Your task to perform on an android device: Open eBay Image 0: 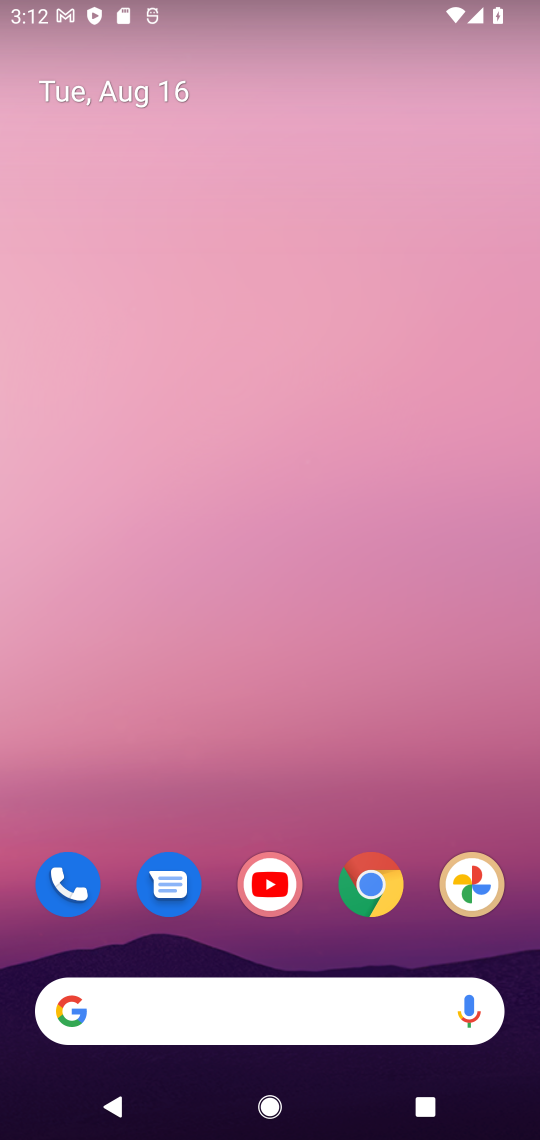
Step 0: click (350, 872)
Your task to perform on an android device: Open eBay Image 1: 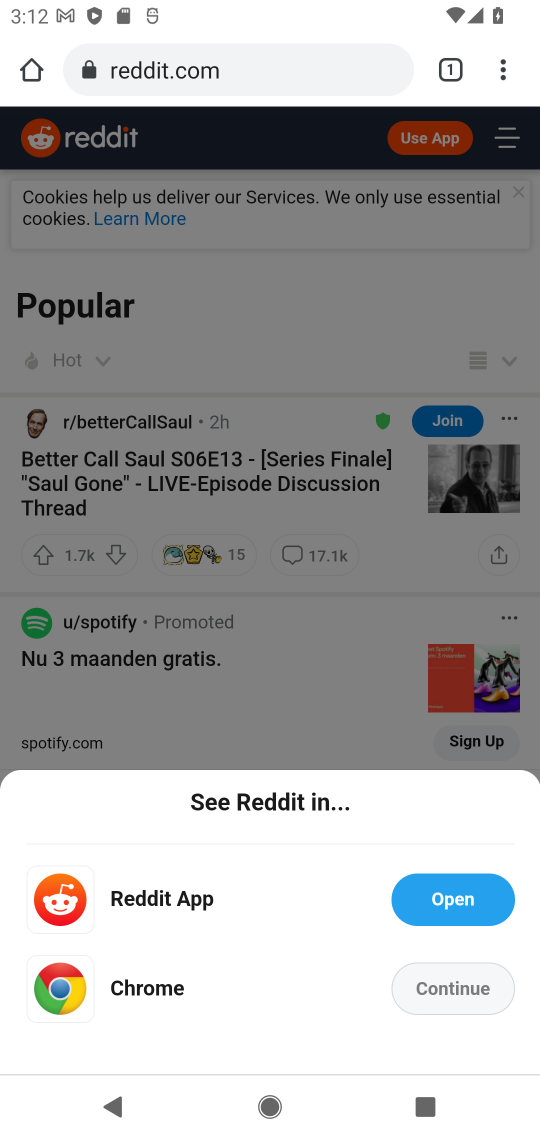
Step 1: click (420, 982)
Your task to perform on an android device: Open eBay Image 2: 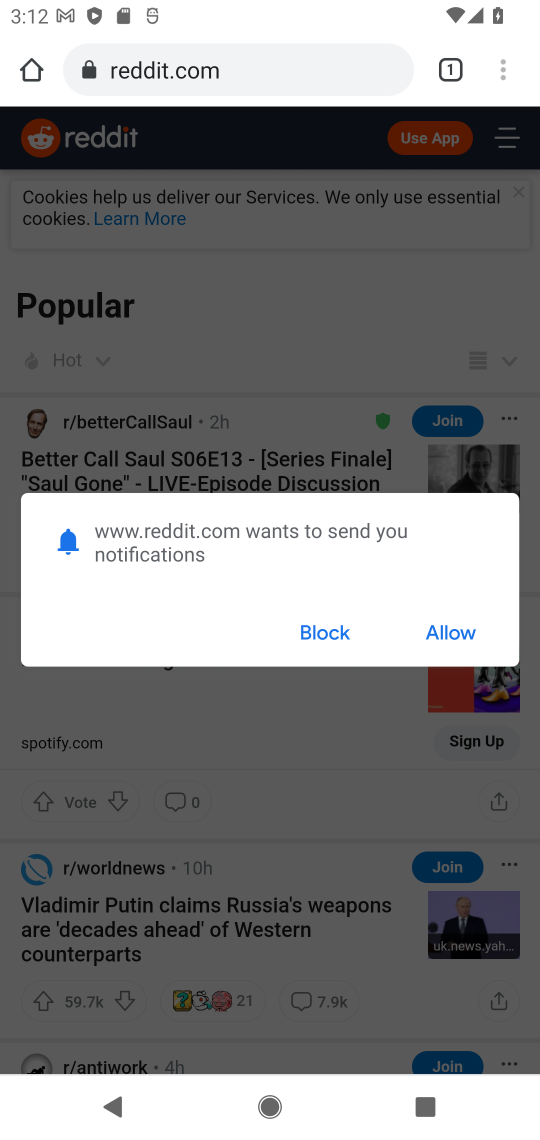
Step 2: click (426, 626)
Your task to perform on an android device: Open eBay Image 3: 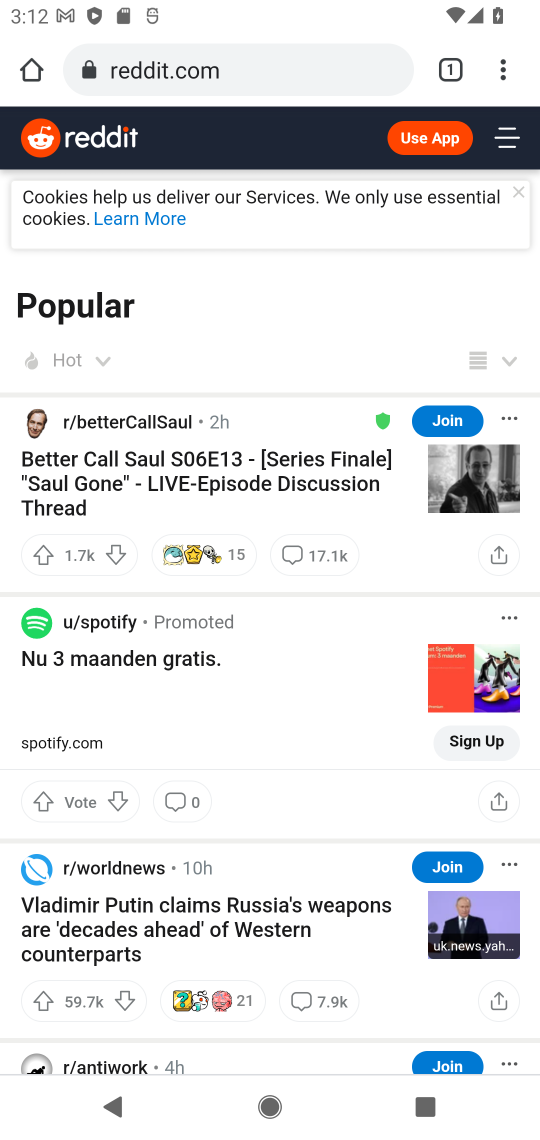
Step 3: click (450, 82)
Your task to perform on an android device: Open eBay Image 4: 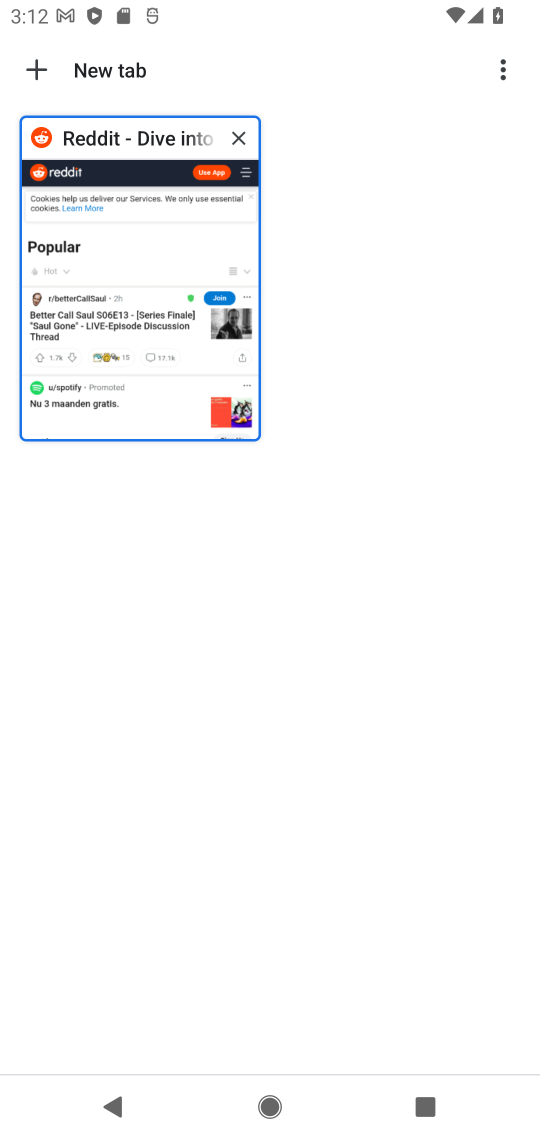
Step 4: click (39, 64)
Your task to perform on an android device: Open eBay Image 5: 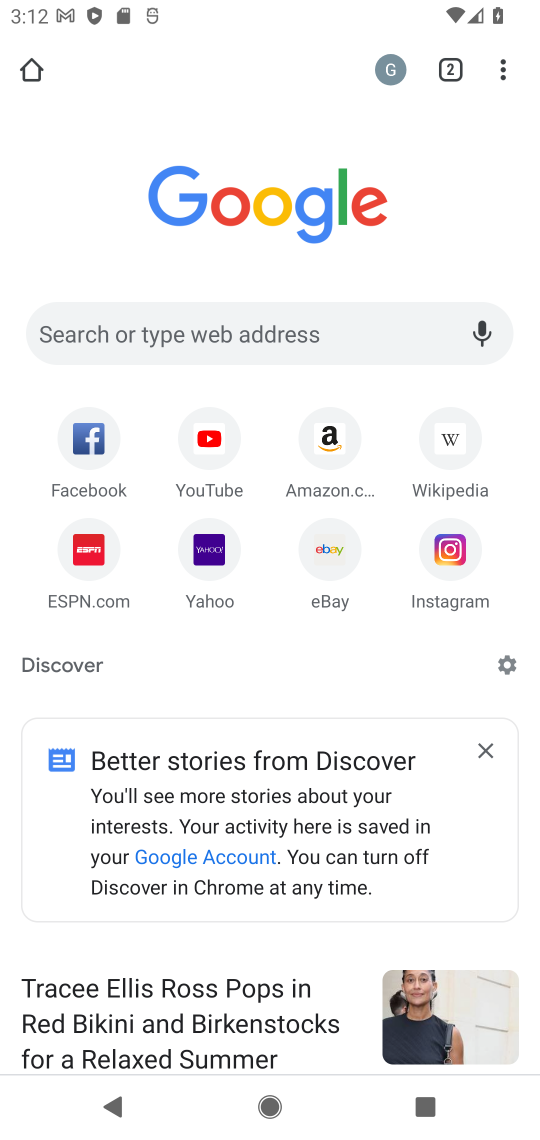
Step 5: click (331, 560)
Your task to perform on an android device: Open eBay Image 6: 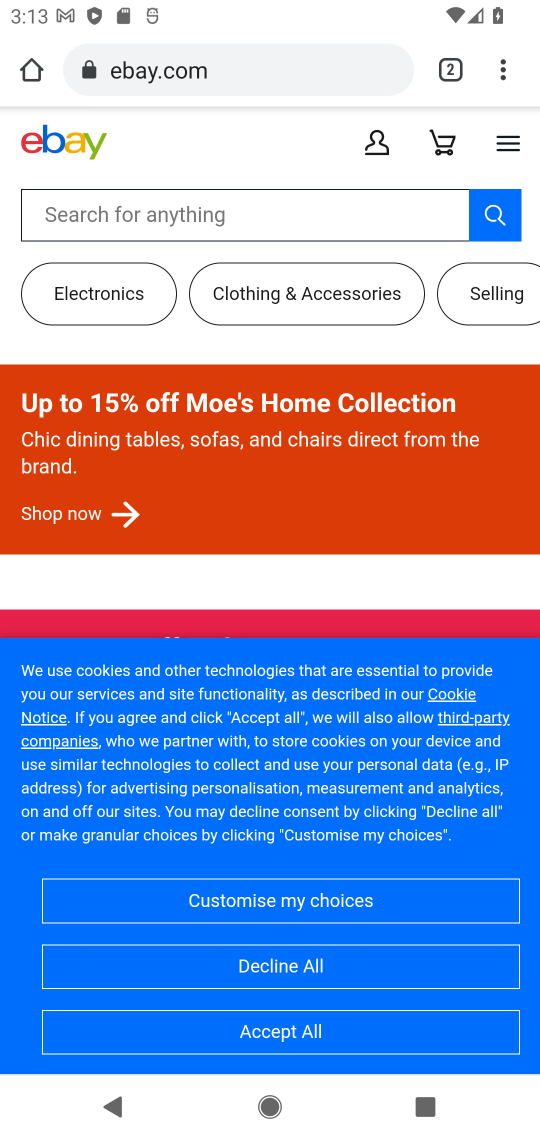
Step 6: task complete